Your task to perform on an android device: Show the shopping cart on ebay. Add "duracell triple a" to the cart on ebay, then select checkout. Image 0: 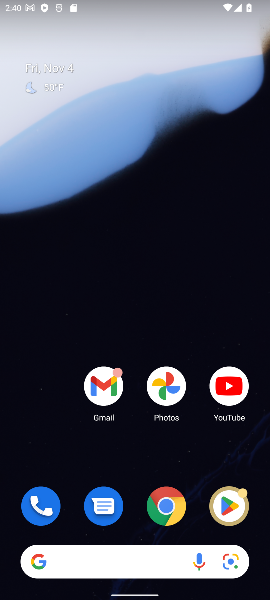
Step 0: drag from (133, 465) to (158, 137)
Your task to perform on an android device: Show the shopping cart on ebay. Add "duracell triple a" to the cart on ebay, then select checkout. Image 1: 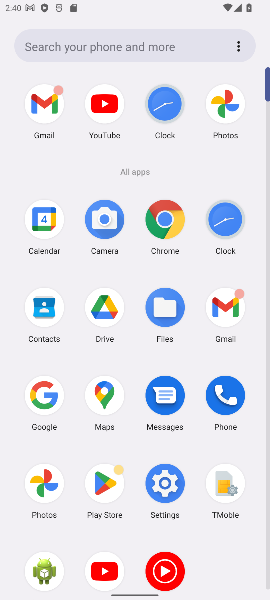
Step 1: click (168, 224)
Your task to perform on an android device: Show the shopping cart on ebay. Add "duracell triple a" to the cart on ebay, then select checkout. Image 2: 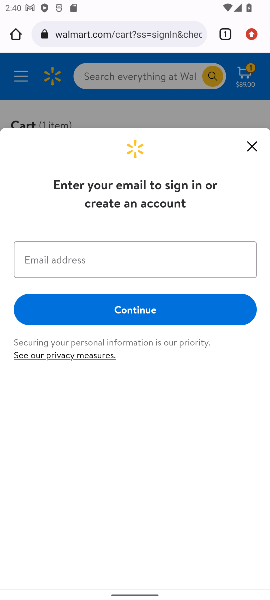
Step 2: click (156, 32)
Your task to perform on an android device: Show the shopping cart on ebay. Add "duracell triple a" to the cart on ebay, then select checkout. Image 3: 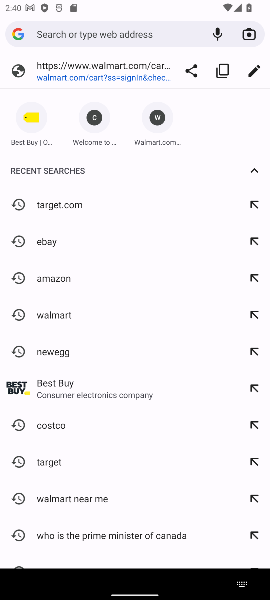
Step 3: type "ebay.com"
Your task to perform on an android device: Show the shopping cart on ebay. Add "duracell triple a" to the cart on ebay, then select checkout. Image 4: 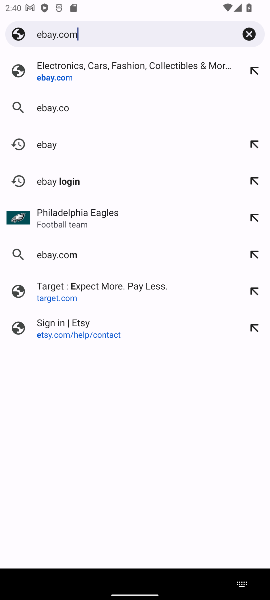
Step 4: press enter
Your task to perform on an android device: Show the shopping cart on ebay. Add "duracell triple a" to the cart on ebay, then select checkout. Image 5: 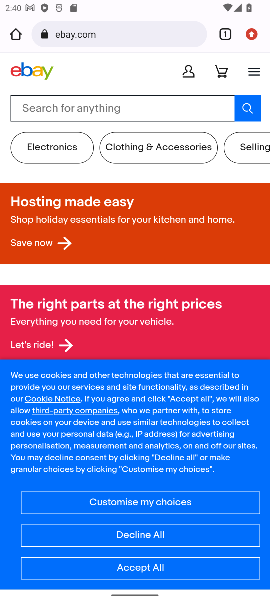
Step 5: click (228, 72)
Your task to perform on an android device: Show the shopping cart on ebay. Add "duracell triple a" to the cart on ebay, then select checkout. Image 6: 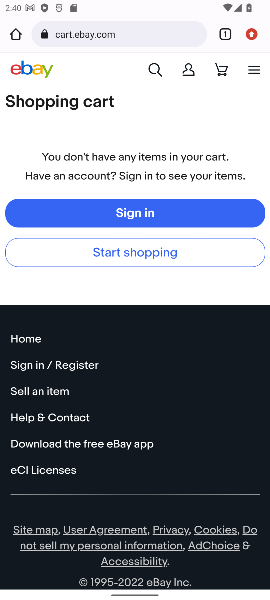
Step 6: click (208, 248)
Your task to perform on an android device: Show the shopping cart on ebay. Add "duracell triple a" to the cart on ebay, then select checkout. Image 7: 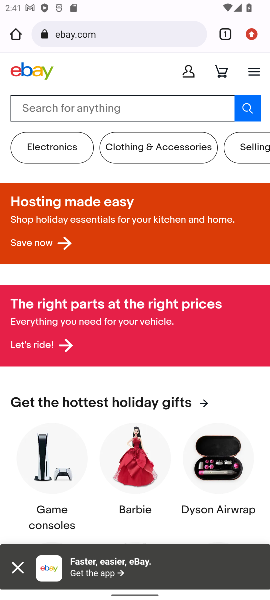
Step 7: click (177, 105)
Your task to perform on an android device: Show the shopping cart on ebay. Add "duracell triple a" to the cart on ebay, then select checkout. Image 8: 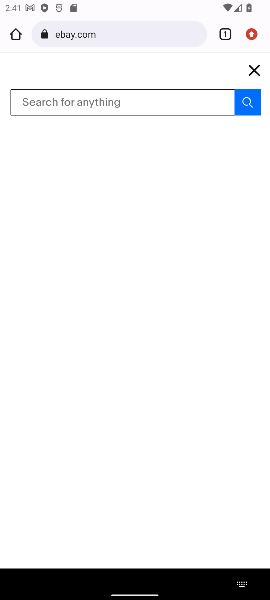
Step 8: type "duracell triple a"
Your task to perform on an android device: Show the shopping cart on ebay. Add "duracell triple a" to the cart on ebay, then select checkout. Image 9: 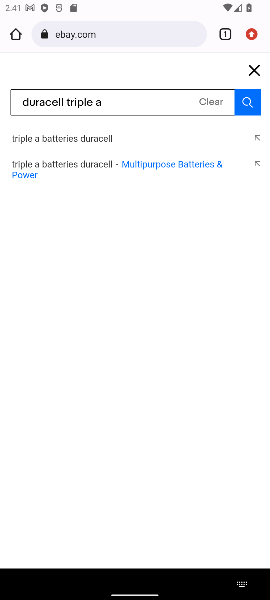
Step 9: press enter
Your task to perform on an android device: Show the shopping cart on ebay. Add "duracell triple a" to the cart on ebay, then select checkout. Image 10: 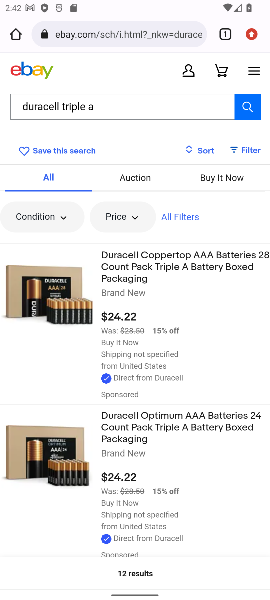
Step 10: click (156, 261)
Your task to perform on an android device: Show the shopping cart on ebay. Add "duracell triple a" to the cart on ebay, then select checkout. Image 11: 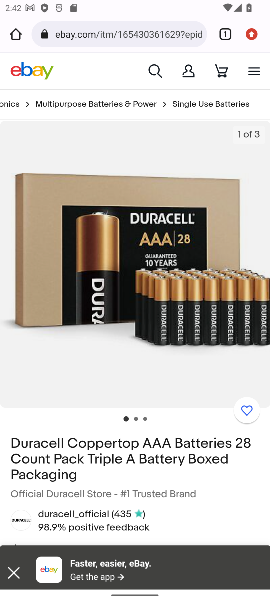
Step 11: drag from (185, 463) to (181, 67)
Your task to perform on an android device: Show the shopping cart on ebay. Add "duracell triple a" to the cart on ebay, then select checkout. Image 12: 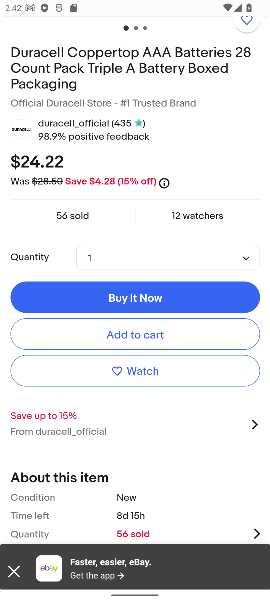
Step 12: click (159, 338)
Your task to perform on an android device: Show the shopping cart on ebay. Add "duracell triple a" to the cart on ebay, then select checkout. Image 13: 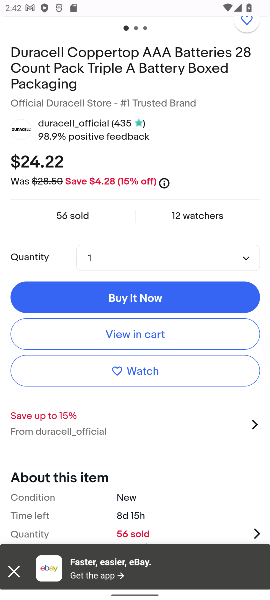
Step 13: click (159, 338)
Your task to perform on an android device: Show the shopping cart on ebay. Add "duracell triple a" to the cart on ebay, then select checkout. Image 14: 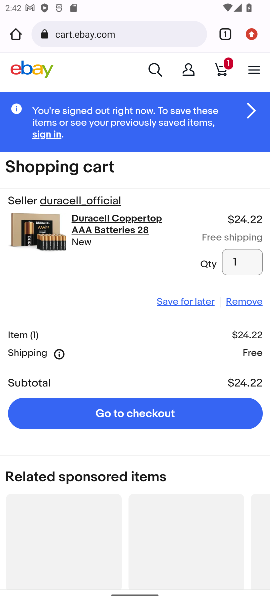
Step 14: click (161, 413)
Your task to perform on an android device: Show the shopping cart on ebay. Add "duracell triple a" to the cart on ebay, then select checkout. Image 15: 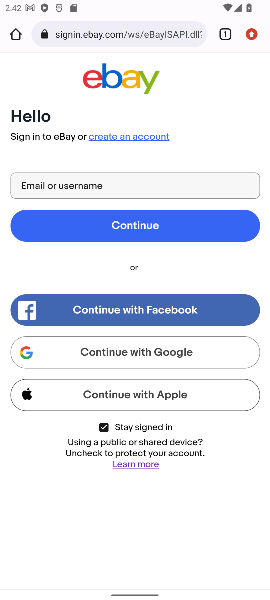
Step 15: task complete